Your task to perform on an android device: Go to location settings Image 0: 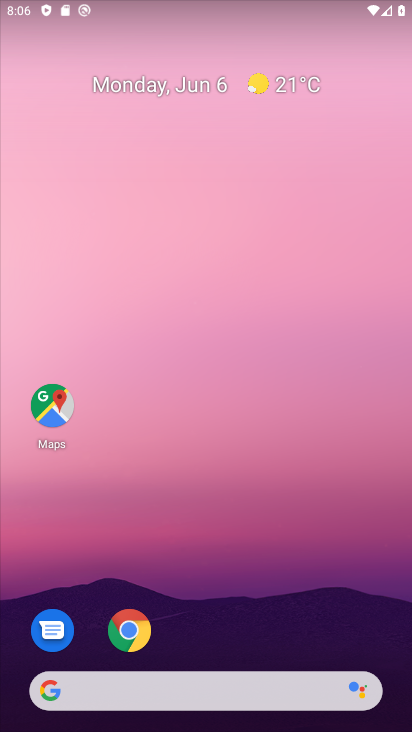
Step 0: drag from (232, 611) to (314, 191)
Your task to perform on an android device: Go to location settings Image 1: 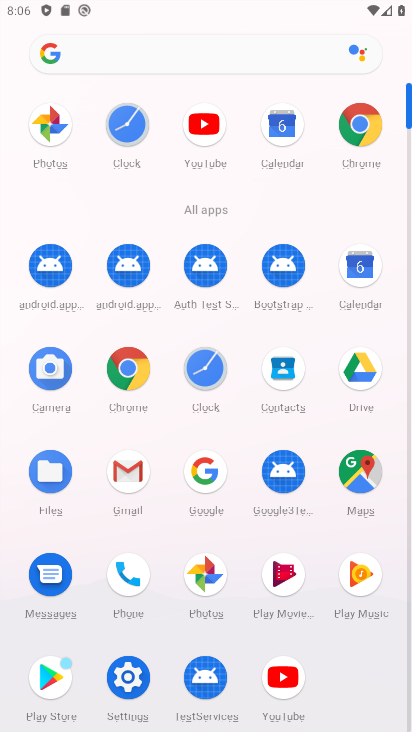
Step 1: drag from (247, 676) to (307, 390)
Your task to perform on an android device: Go to location settings Image 2: 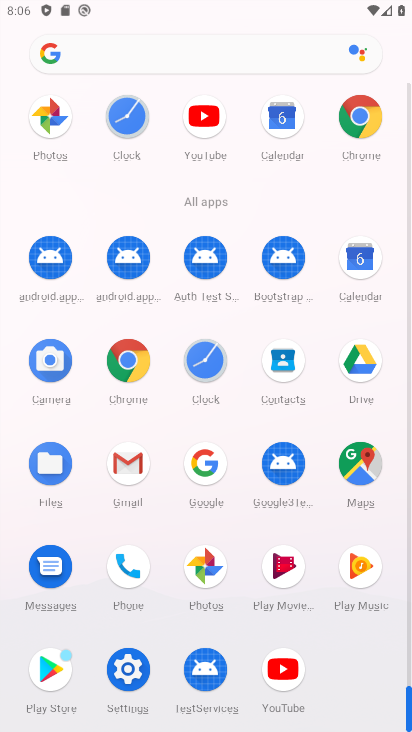
Step 2: click (135, 665)
Your task to perform on an android device: Go to location settings Image 3: 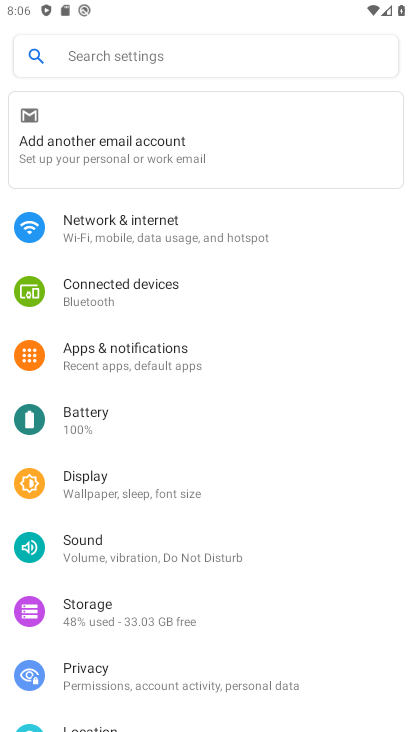
Step 3: drag from (150, 647) to (208, 422)
Your task to perform on an android device: Go to location settings Image 4: 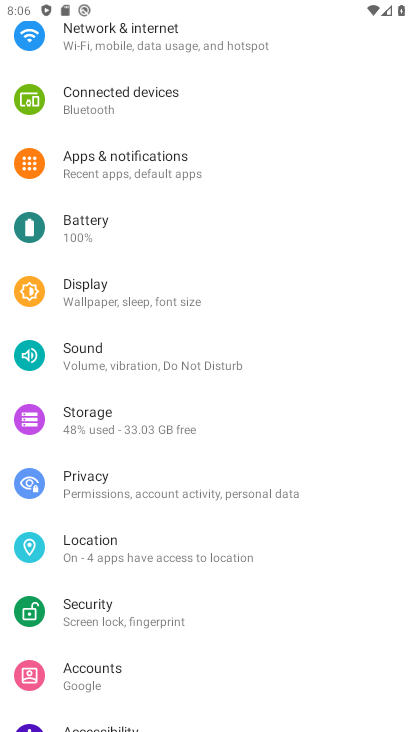
Step 4: click (132, 553)
Your task to perform on an android device: Go to location settings Image 5: 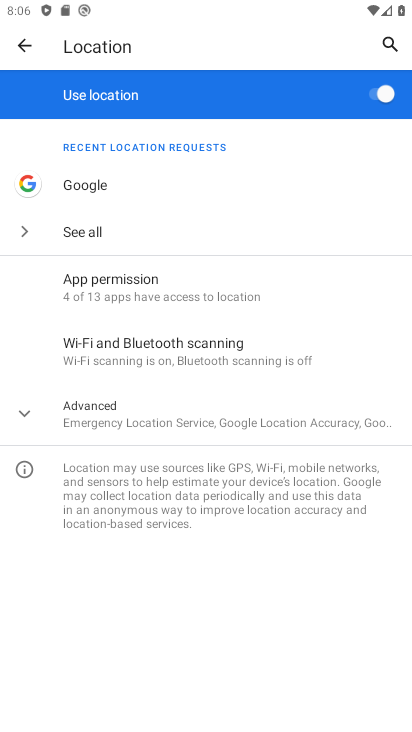
Step 5: task complete